Your task to perform on an android device: Search for vegetarian restaurants on Maps Image 0: 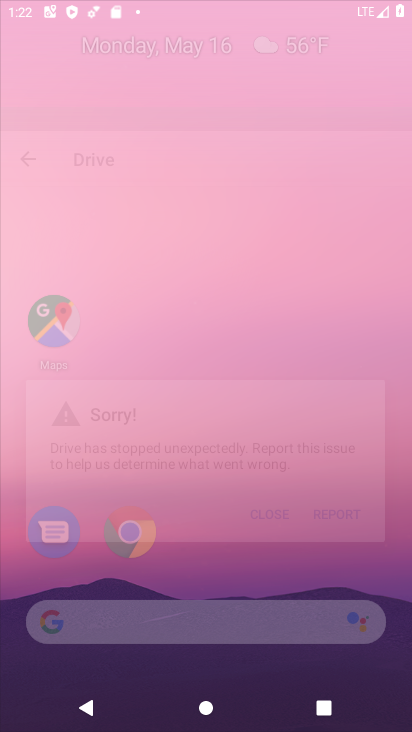
Step 0: click (281, 93)
Your task to perform on an android device: Search for vegetarian restaurants on Maps Image 1: 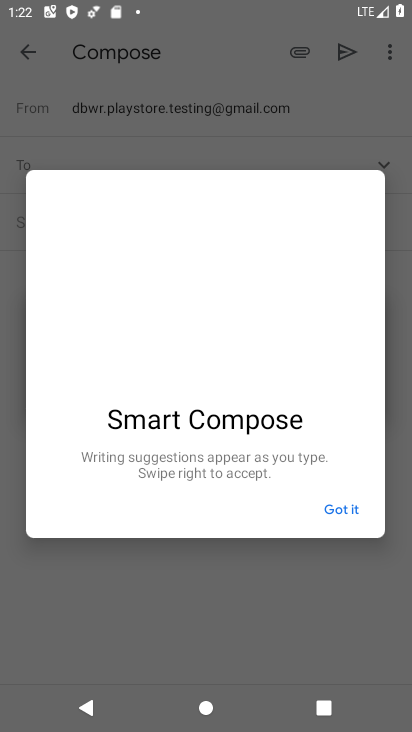
Step 1: press home button
Your task to perform on an android device: Search for vegetarian restaurants on Maps Image 2: 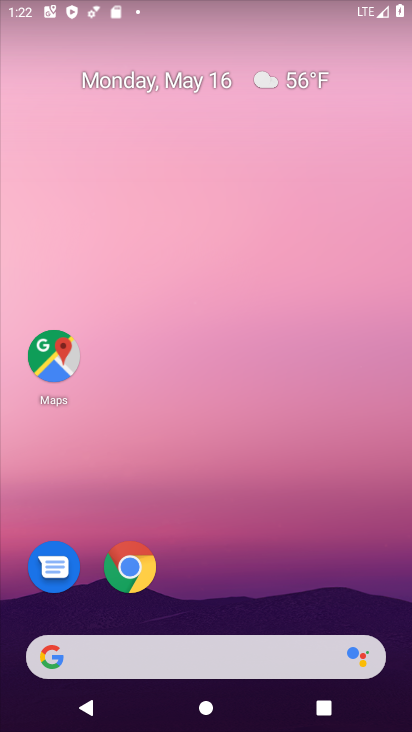
Step 2: click (59, 363)
Your task to perform on an android device: Search for vegetarian restaurants on Maps Image 3: 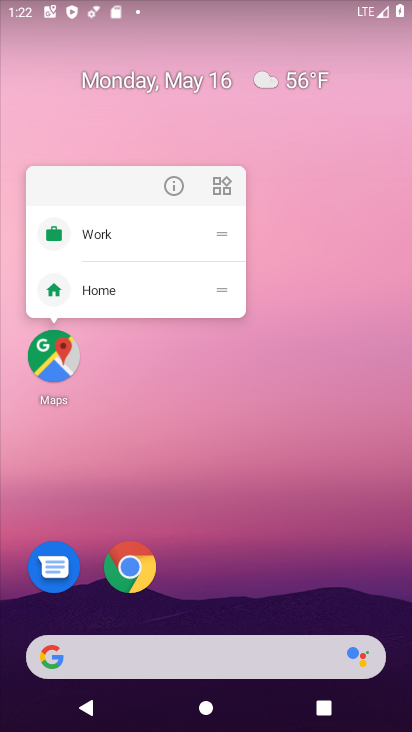
Step 3: click (59, 365)
Your task to perform on an android device: Search for vegetarian restaurants on Maps Image 4: 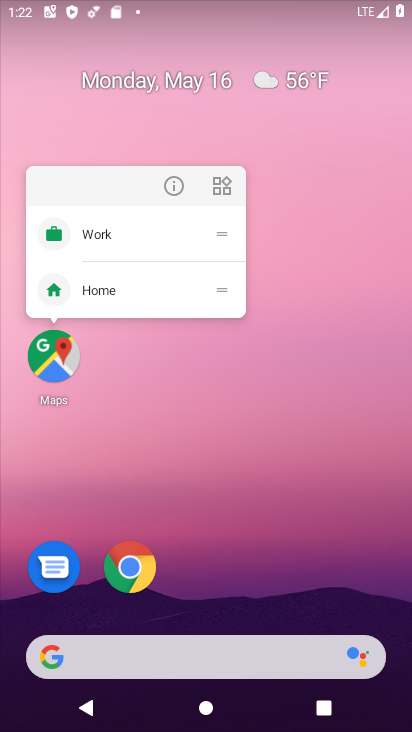
Step 4: click (59, 364)
Your task to perform on an android device: Search for vegetarian restaurants on Maps Image 5: 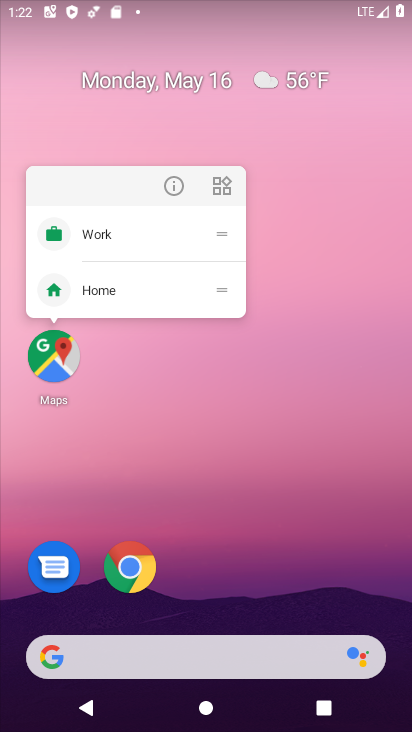
Step 5: click (55, 337)
Your task to perform on an android device: Search for vegetarian restaurants on Maps Image 6: 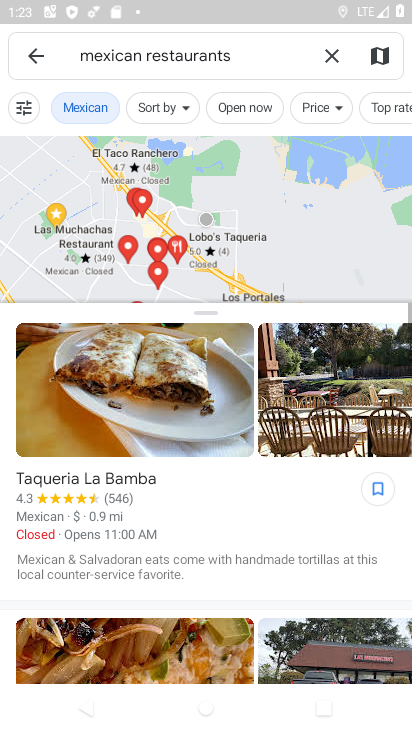
Step 6: click (329, 57)
Your task to perform on an android device: Search for vegetarian restaurants on Maps Image 7: 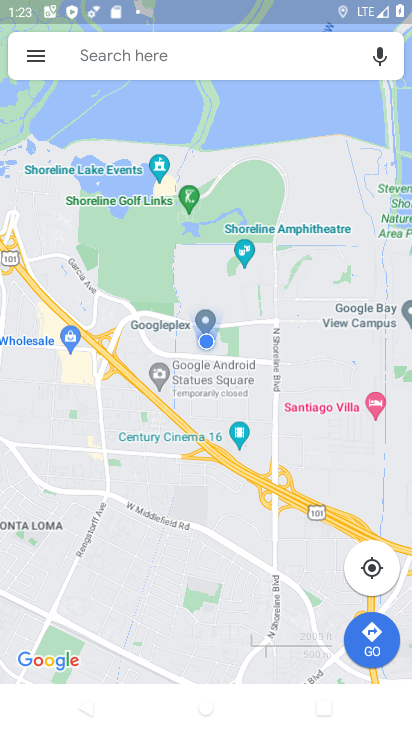
Step 7: click (191, 61)
Your task to perform on an android device: Search for vegetarian restaurants on Maps Image 8: 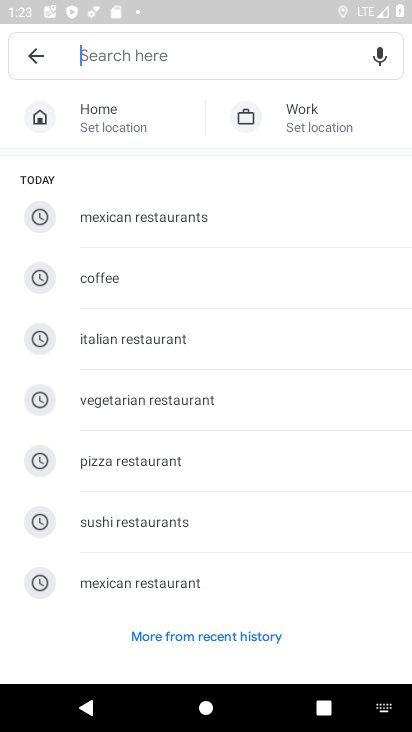
Step 8: type "vegetarian restaurants"
Your task to perform on an android device: Search for vegetarian restaurants on Maps Image 9: 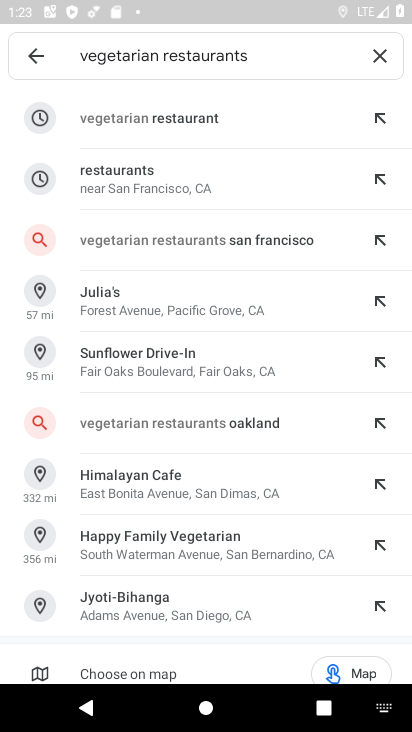
Step 9: click (212, 126)
Your task to perform on an android device: Search for vegetarian restaurants on Maps Image 10: 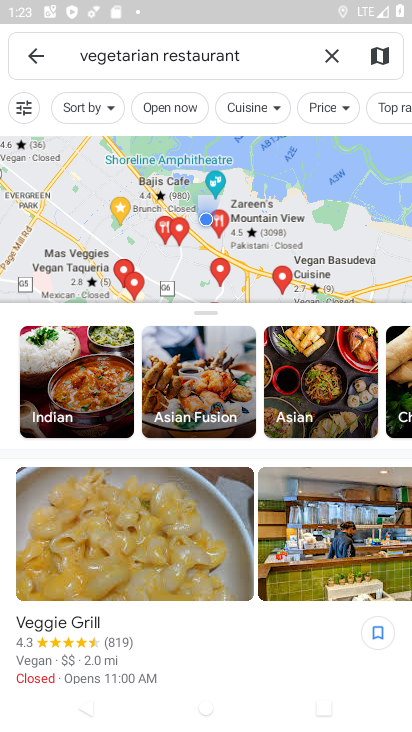
Step 10: task complete